Your task to perform on an android device: set an alarm Image 0: 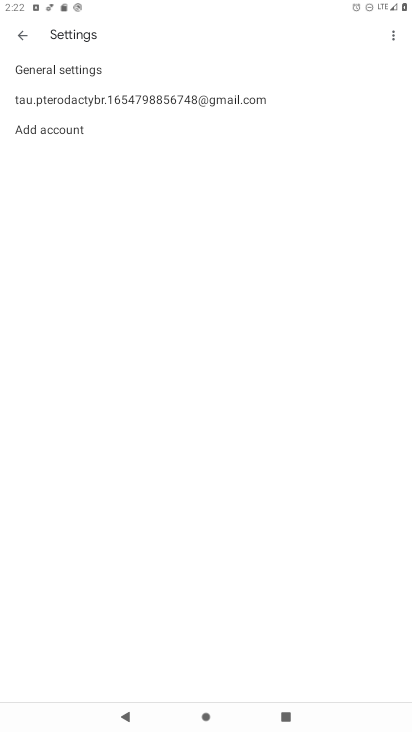
Step 0: press home button
Your task to perform on an android device: set an alarm Image 1: 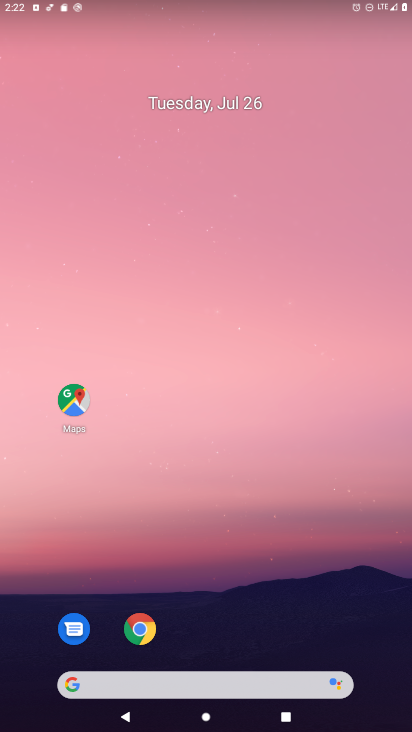
Step 1: drag from (392, 677) to (338, 110)
Your task to perform on an android device: set an alarm Image 2: 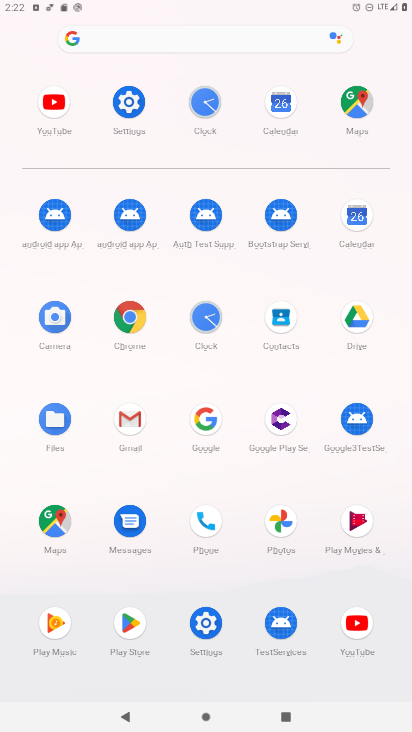
Step 2: click (207, 319)
Your task to perform on an android device: set an alarm Image 3: 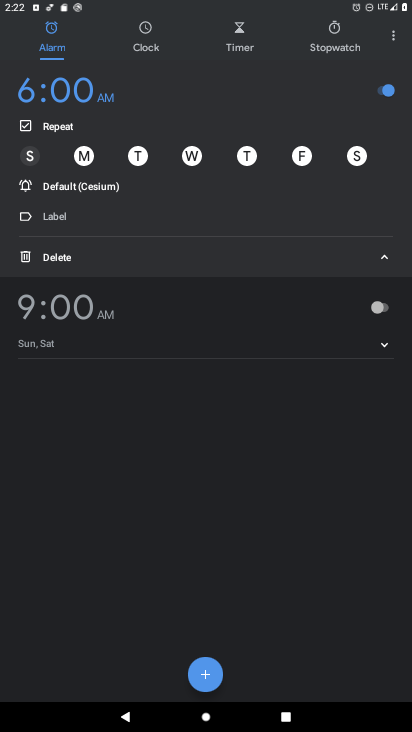
Step 3: click (74, 321)
Your task to perform on an android device: set an alarm Image 4: 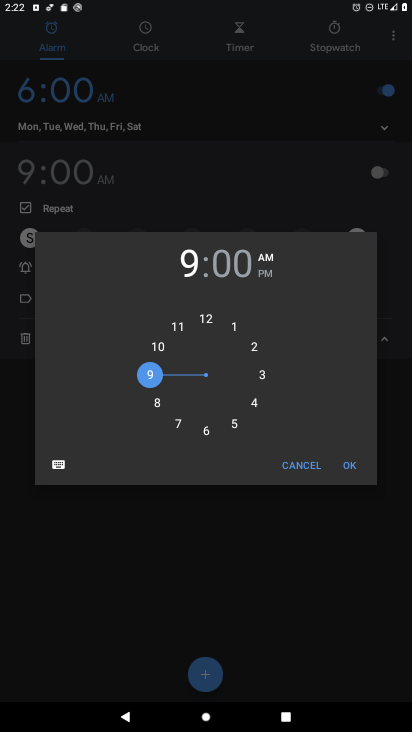
Step 4: click (209, 437)
Your task to perform on an android device: set an alarm Image 5: 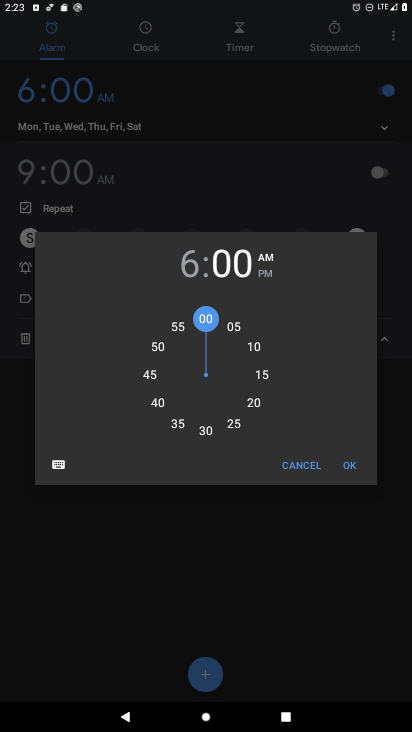
Step 5: click (353, 472)
Your task to perform on an android device: set an alarm Image 6: 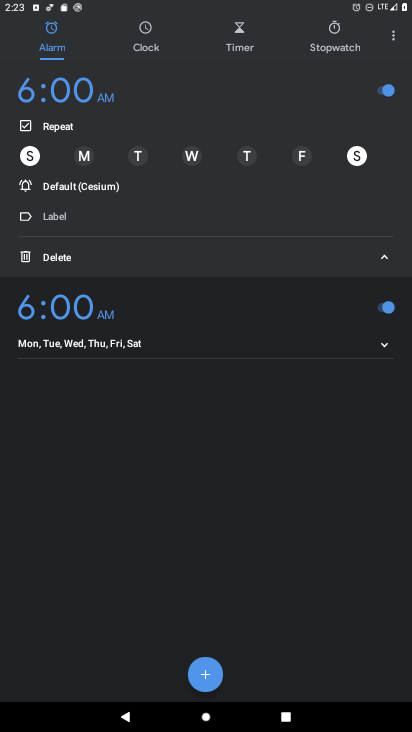
Step 6: click (79, 152)
Your task to perform on an android device: set an alarm Image 7: 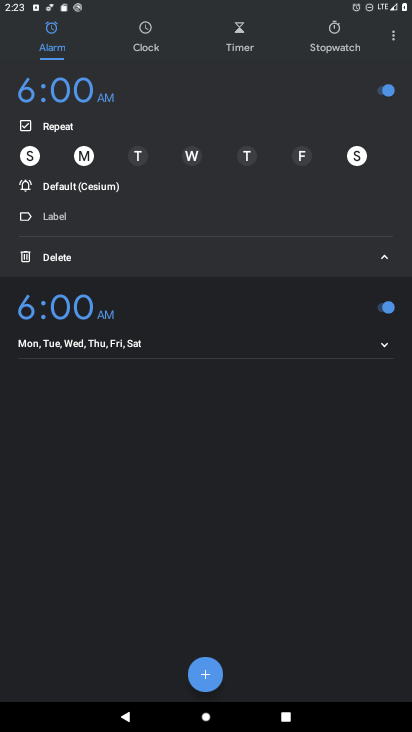
Step 7: click (137, 163)
Your task to perform on an android device: set an alarm Image 8: 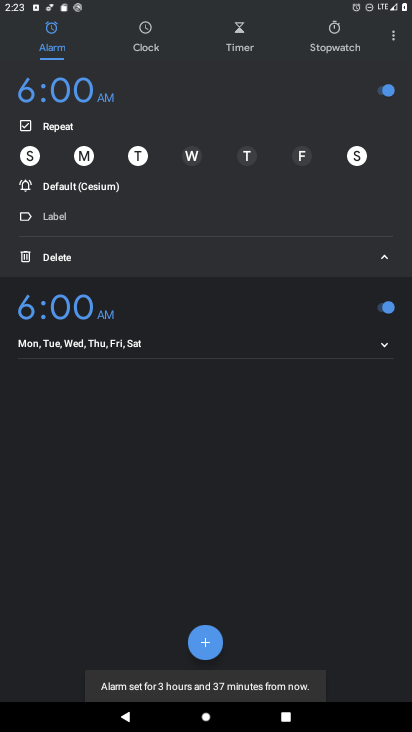
Step 8: click (189, 157)
Your task to perform on an android device: set an alarm Image 9: 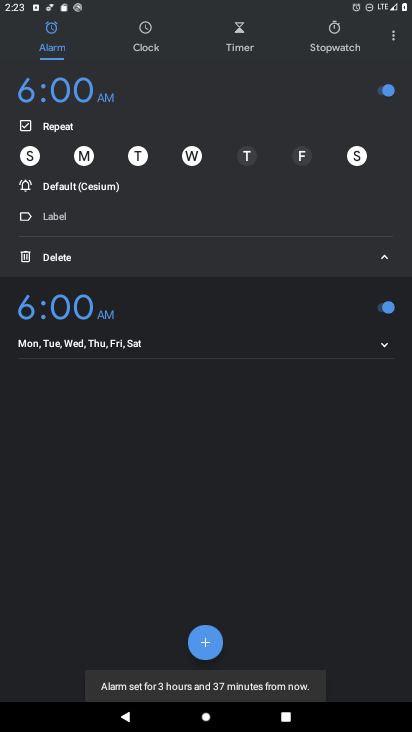
Step 9: click (238, 153)
Your task to perform on an android device: set an alarm Image 10: 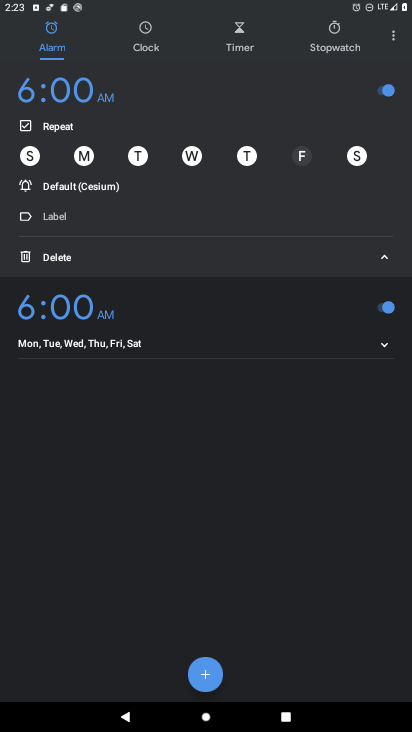
Step 10: click (307, 158)
Your task to perform on an android device: set an alarm Image 11: 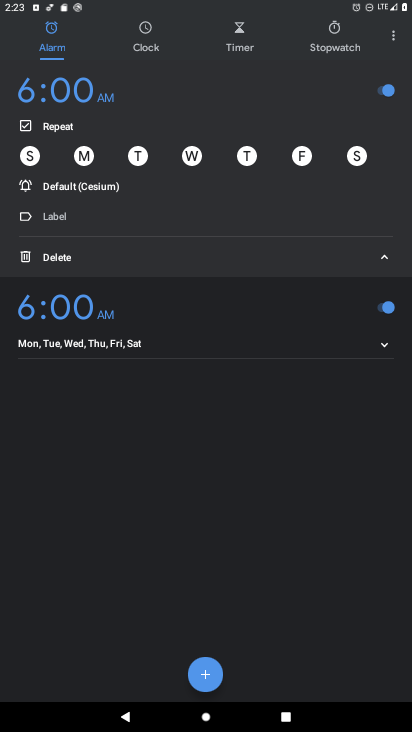
Step 11: click (29, 157)
Your task to perform on an android device: set an alarm Image 12: 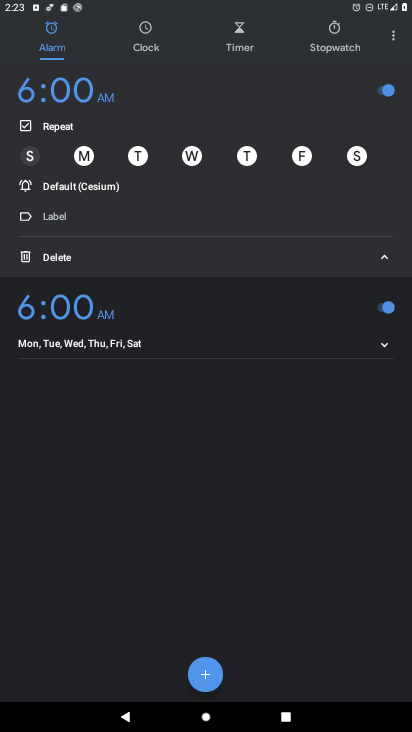
Step 12: click (379, 262)
Your task to perform on an android device: set an alarm Image 13: 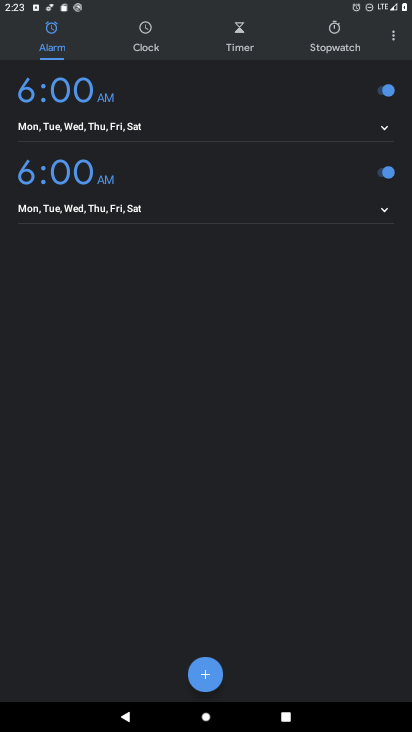
Step 13: task complete